Your task to perform on an android device: turn off priority inbox in the gmail app Image 0: 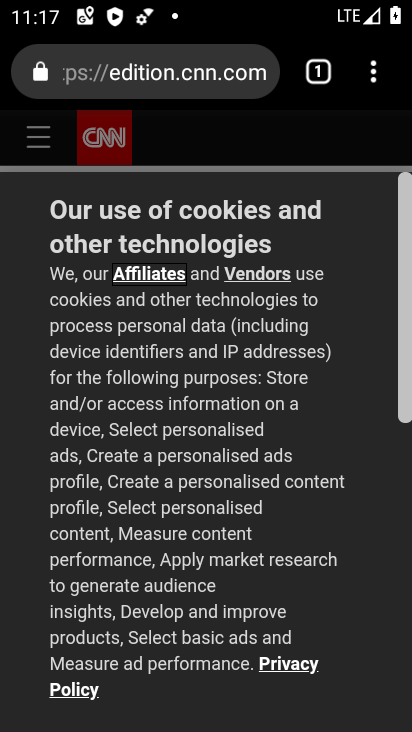
Step 0: press home button
Your task to perform on an android device: turn off priority inbox in the gmail app Image 1: 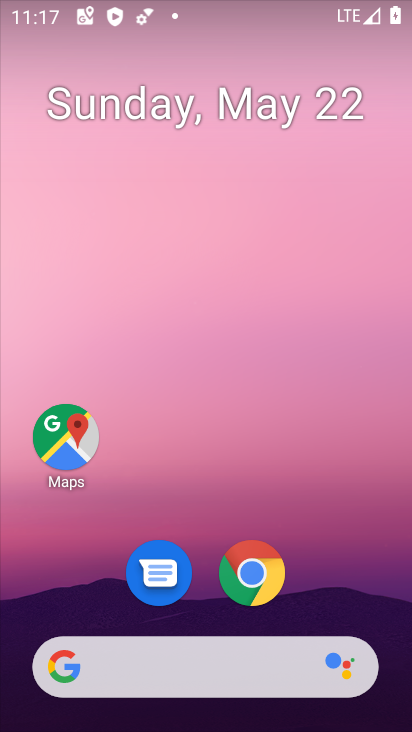
Step 1: drag from (313, 597) to (302, 38)
Your task to perform on an android device: turn off priority inbox in the gmail app Image 2: 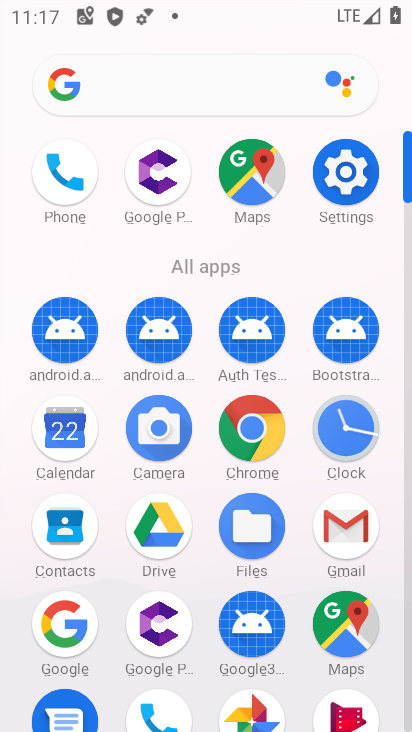
Step 2: click (343, 525)
Your task to perform on an android device: turn off priority inbox in the gmail app Image 3: 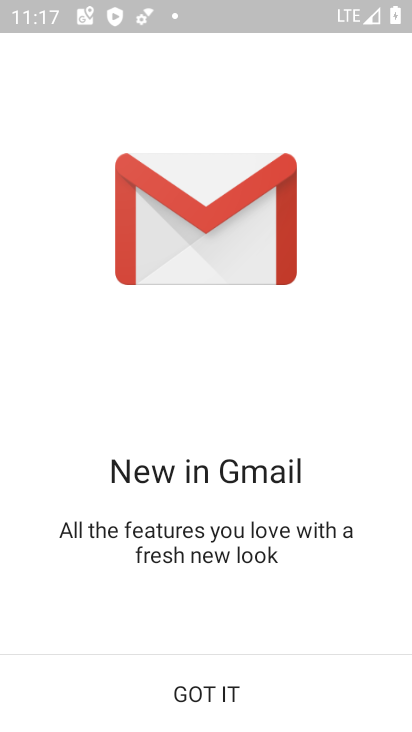
Step 3: click (201, 687)
Your task to perform on an android device: turn off priority inbox in the gmail app Image 4: 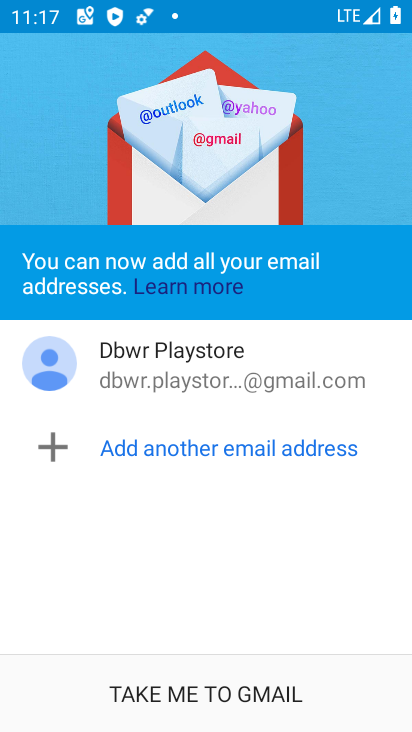
Step 4: click (194, 680)
Your task to perform on an android device: turn off priority inbox in the gmail app Image 5: 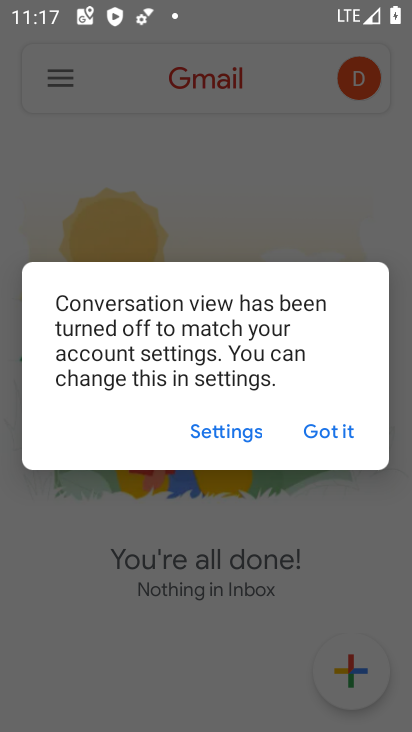
Step 5: click (337, 433)
Your task to perform on an android device: turn off priority inbox in the gmail app Image 6: 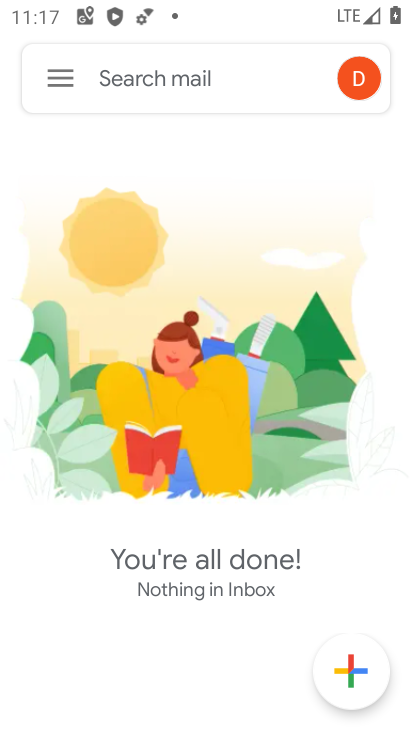
Step 6: click (64, 76)
Your task to perform on an android device: turn off priority inbox in the gmail app Image 7: 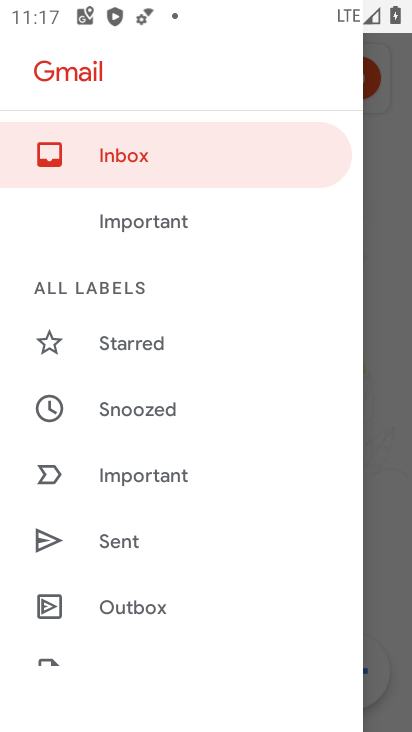
Step 7: drag from (153, 640) to (172, 295)
Your task to perform on an android device: turn off priority inbox in the gmail app Image 8: 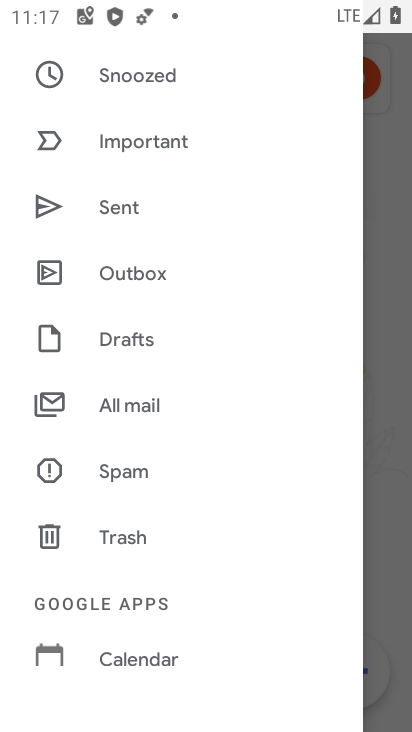
Step 8: drag from (166, 598) to (172, 209)
Your task to perform on an android device: turn off priority inbox in the gmail app Image 9: 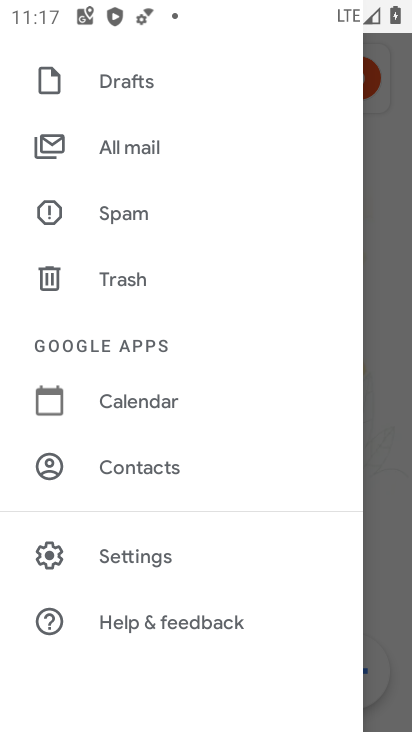
Step 9: click (159, 557)
Your task to perform on an android device: turn off priority inbox in the gmail app Image 10: 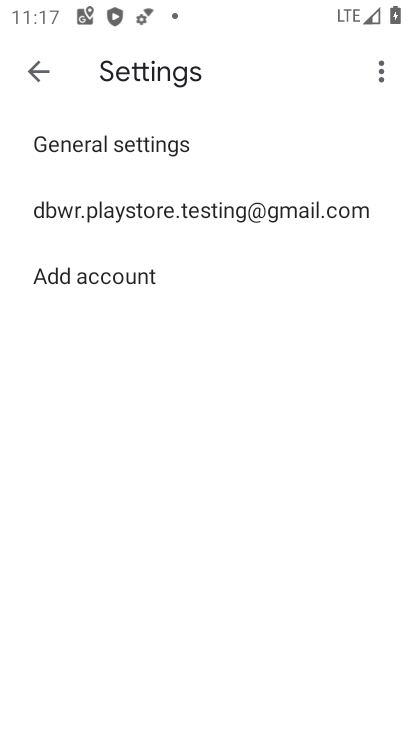
Step 10: click (222, 215)
Your task to perform on an android device: turn off priority inbox in the gmail app Image 11: 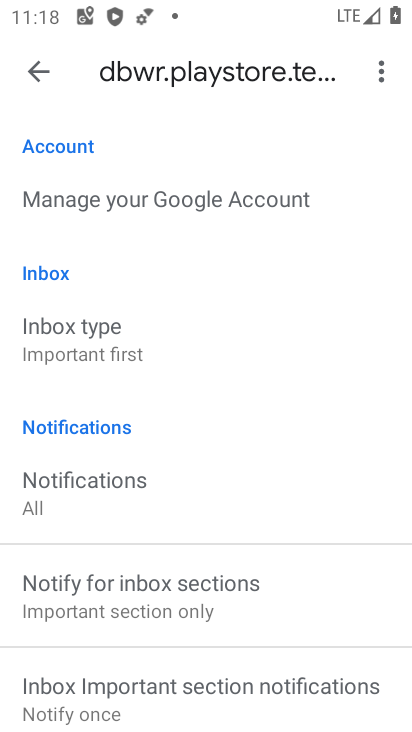
Step 11: click (56, 336)
Your task to perform on an android device: turn off priority inbox in the gmail app Image 12: 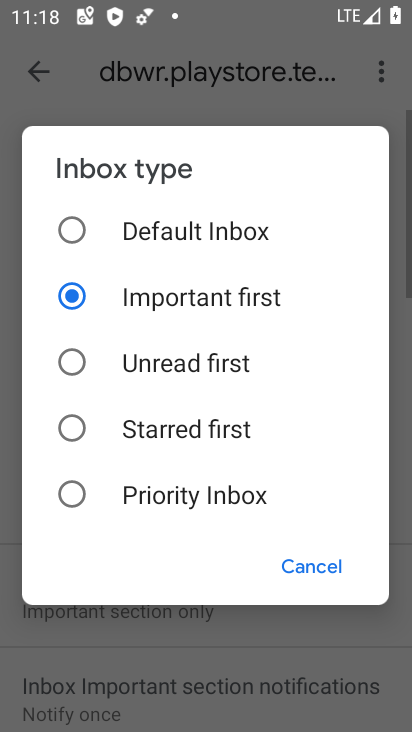
Step 12: click (152, 297)
Your task to perform on an android device: turn off priority inbox in the gmail app Image 13: 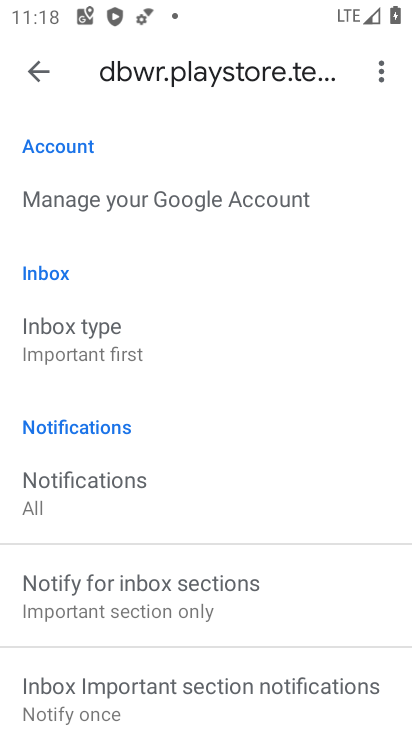
Step 13: task complete